Your task to perform on an android device: turn on notifications settings in the gmail app Image 0: 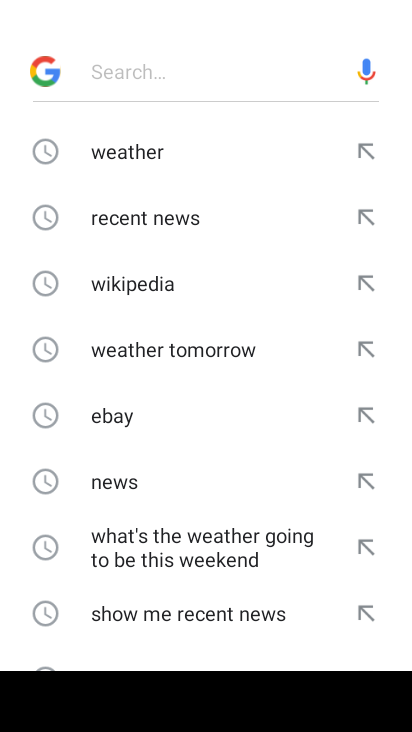
Step 0: press home button
Your task to perform on an android device: turn on notifications settings in the gmail app Image 1: 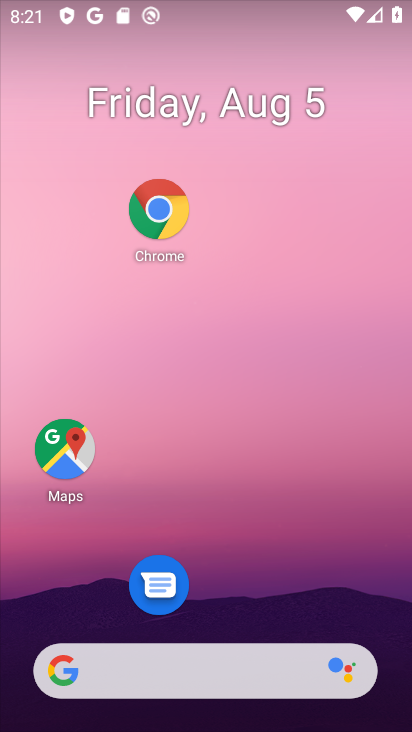
Step 1: drag from (204, 629) to (149, 178)
Your task to perform on an android device: turn on notifications settings in the gmail app Image 2: 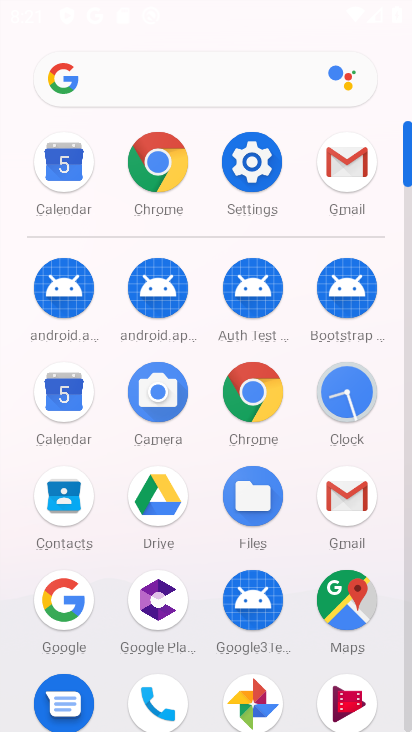
Step 2: click (356, 503)
Your task to perform on an android device: turn on notifications settings in the gmail app Image 3: 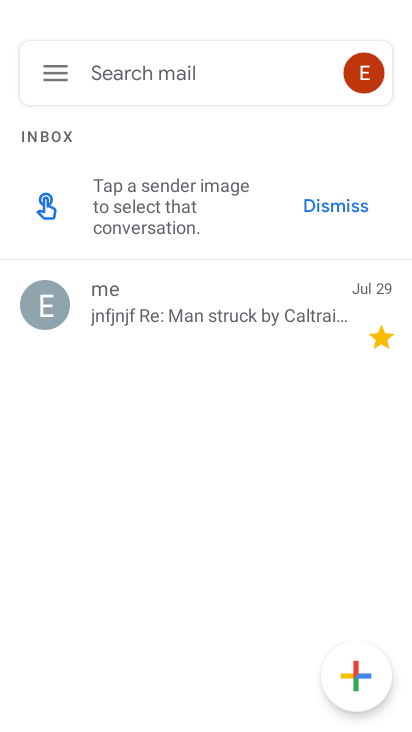
Step 3: click (40, 91)
Your task to perform on an android device: turn on notifications settings in the gmail app Image 4: 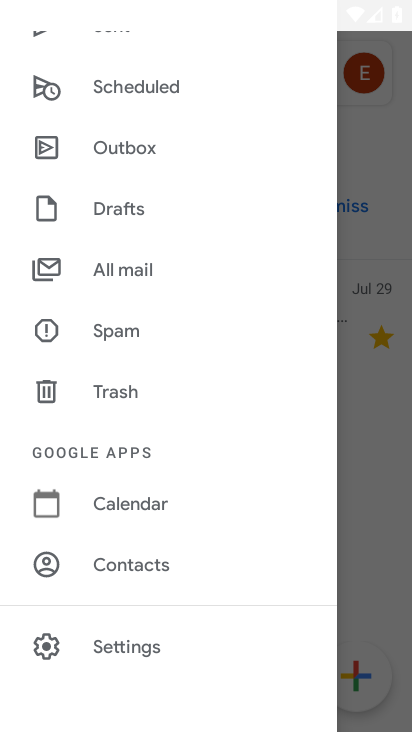
Step 4: click (115, 629)
Your task to perform on an android device: turn on notifications settings in the gmail app Image 5: 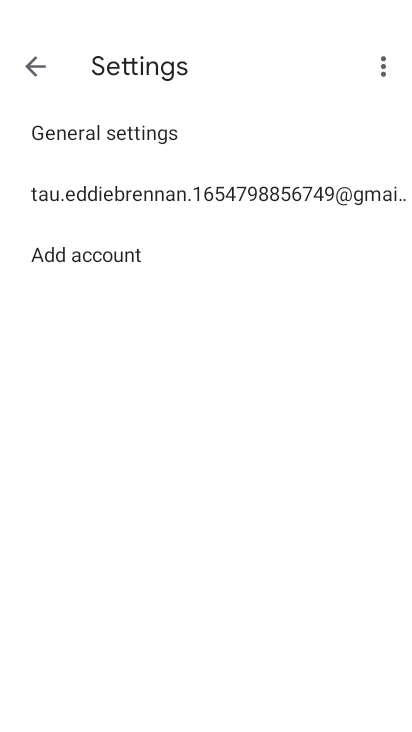
Step 5: click (84, 125)
Your task to perform on an android device: turn on notifications settings in the gmail app Image 6: 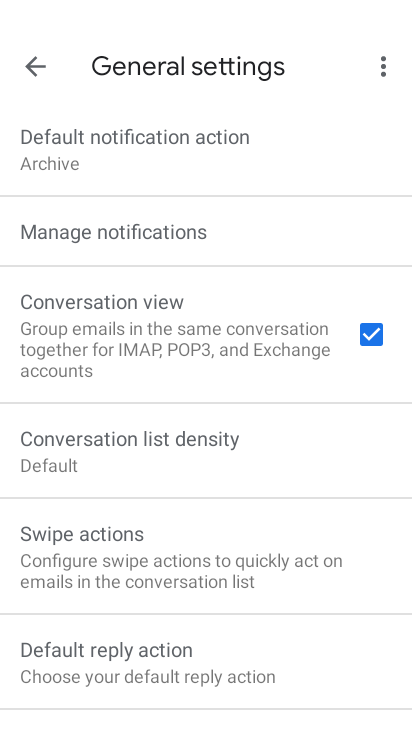
Step 6: click (104, 231)
Your task to perform on an android device: turn on notifications settings in the gmail app Image 7: 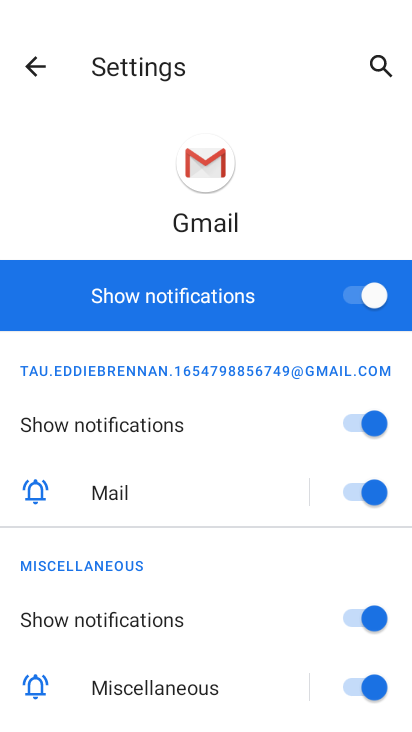
Step 7: task complete